Your task to perform on an android device: Open Android settings Image 0: 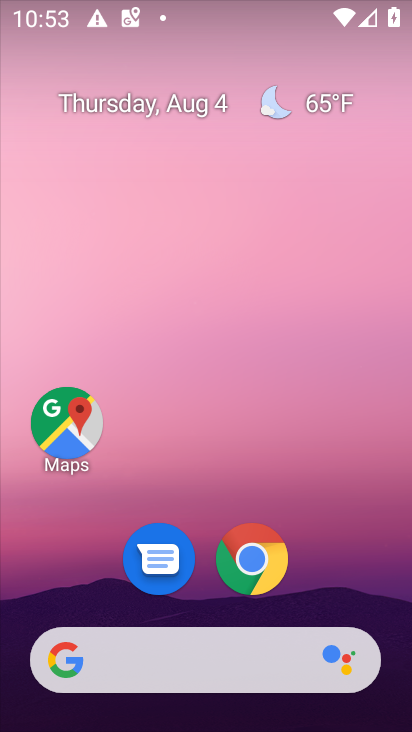
Step 0: drag from (216, 659) to (186, 78)
Your task to perform on an android device: Open Android settings Image 1: 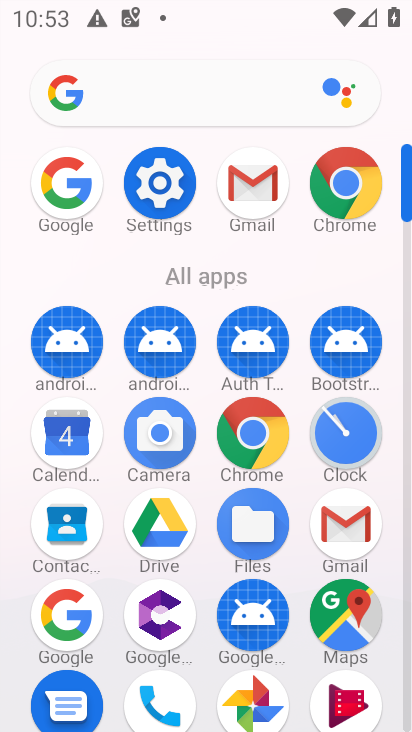
Step 1: click (165, 176)
Your task to perform on an android device: Open Android settings Image 2: 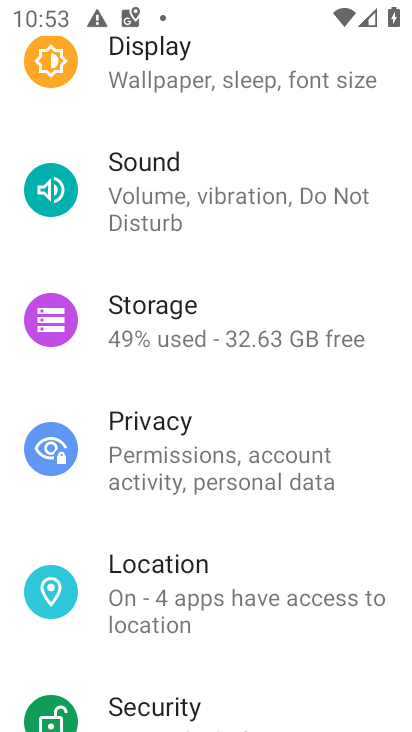
Step 2: task complete